Your task to perform on an android device: Open privacy settings Image 0: 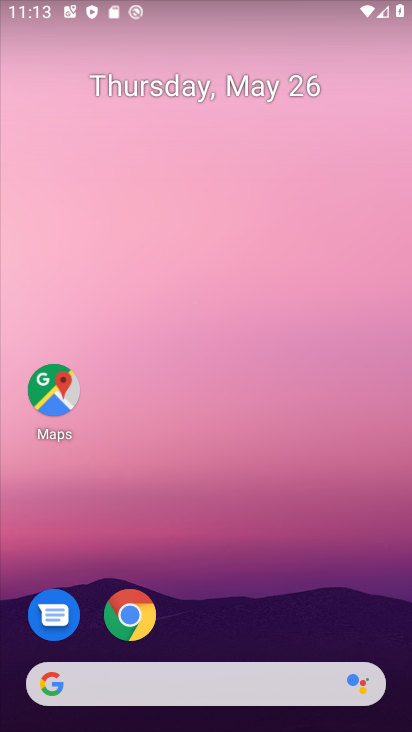
Step 0: drag from (312, 681) to (315, 167)
Your task to perform on an android device: Open privacy settings Image 1: 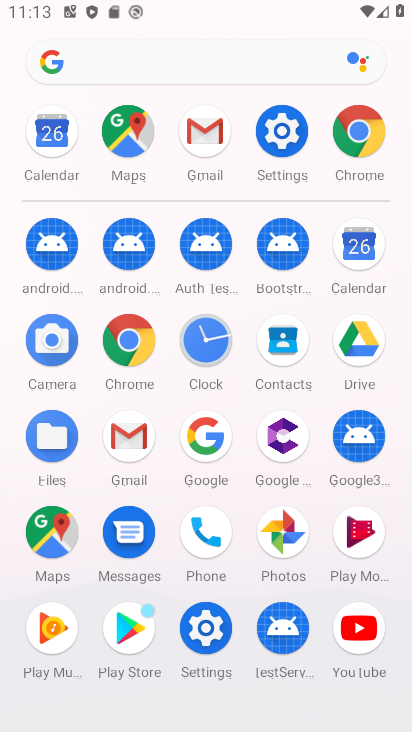
Step 1: click (273, 126)
Your task to perform on an android device: Open privacy settings Image 2: 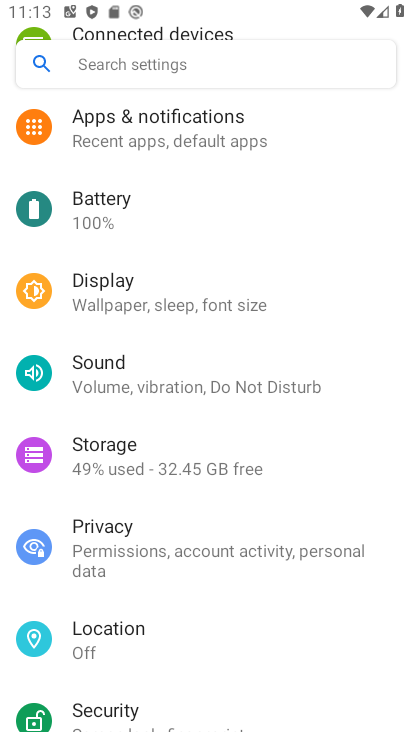
Step 2: click (174, 539)
Your task to perform on an android device: Open privacy settings Image 3: 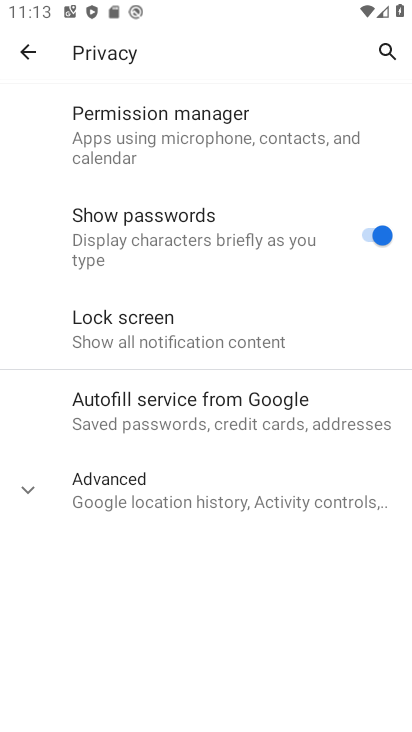
Step 3: task complete